Your task to perform on an android device: open app "Cash App" (install if not already installed) and go to login screen Image 0: 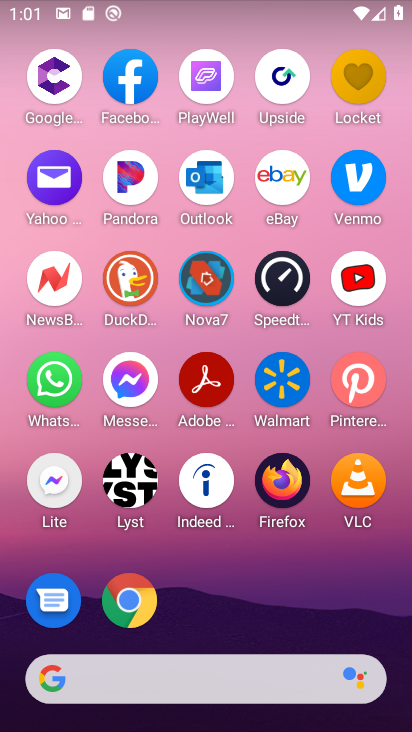
Step 0: drag from (210, 624) to (196, 92)
Your task to perform on an android device: open app "Cash App" (install if not already installed) and go to login screen Image 1: 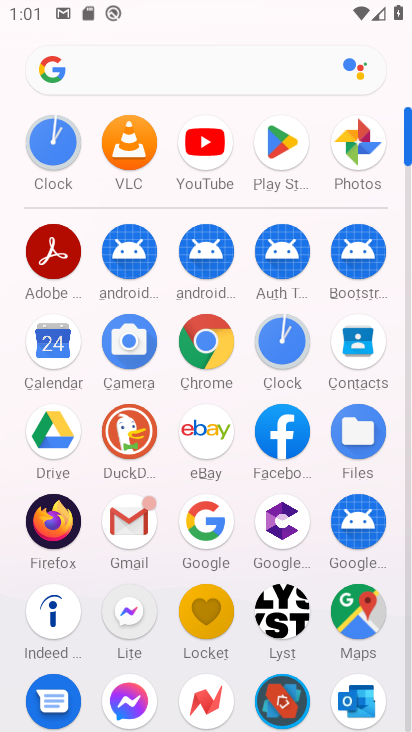
Step 1: click (260, 161)
Your task to perform on an android device: open app "Cash App" (install if not already installed) and go to login screen Image 2: 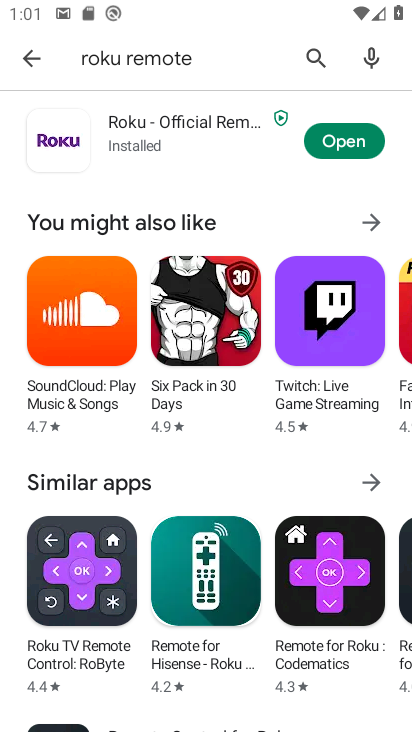
Step 2: click (314, 53)
Your task to perform on an android device: open app "Cash App" (install if not already installed) and go to login screen Image 3: 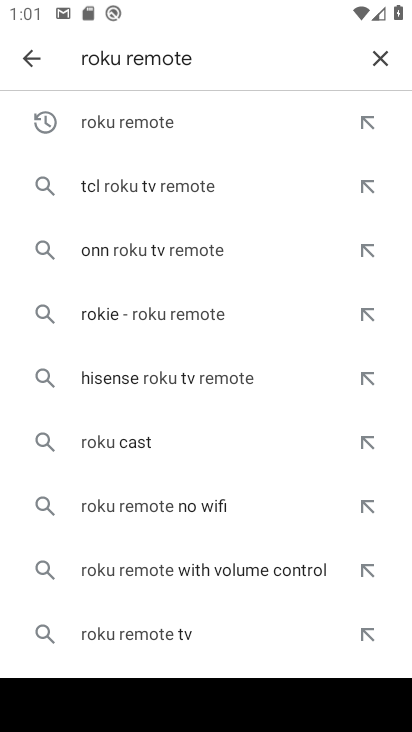
Step 3: click (372, 57)
Your task to perform on an android device: open app "Cash App" (install if not already installed) and go to login screen Image 4: 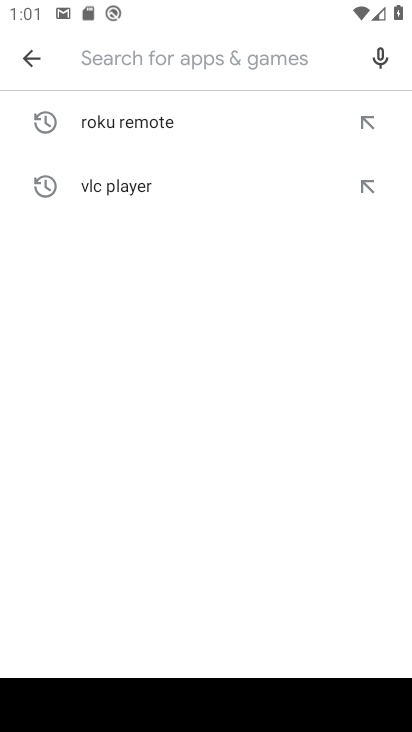
Step 4: type "cash app"
Your task to perform on an android device: open app "Cash App" (install if not already installed) and go to login screen Image 5: 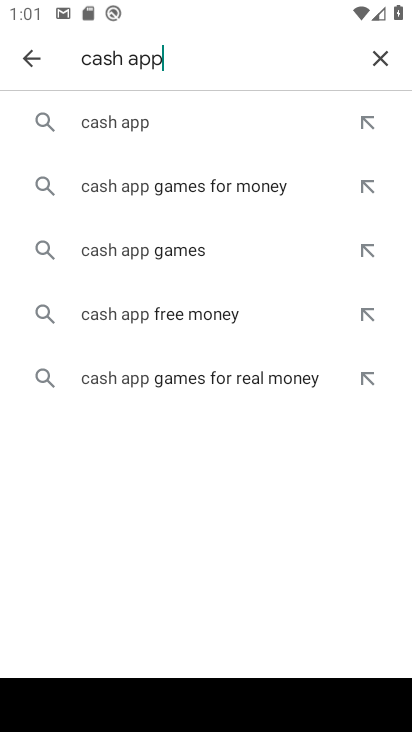
Step 5: click (188, 108)
Your task to perform on an android device: open app "Cash App" (install if not already installed) and go to login screen Image 6: 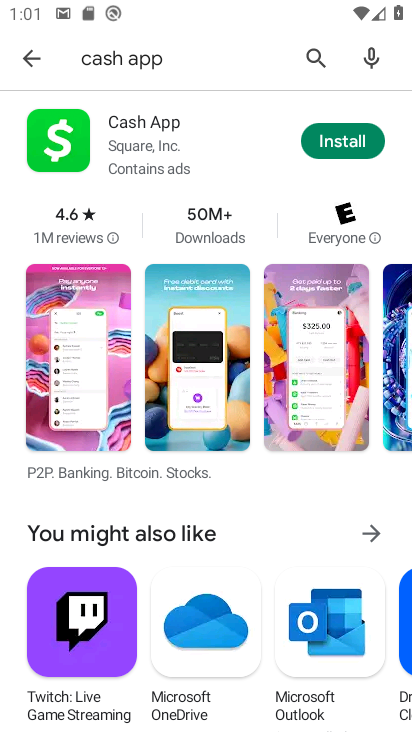
Step 6: click (355, 129)
Your task to perform on an android device: open app "Cash App" (install if not already installed) and go to login screen Image 7: 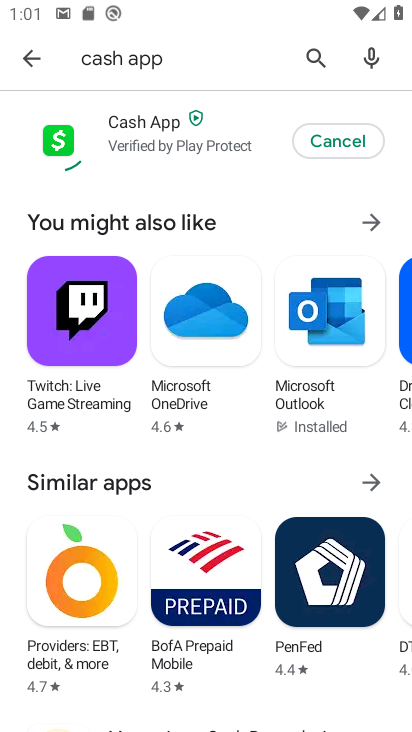
Step 7: task complete